Your task to perform on an android device: turn notification dots off Image 0: 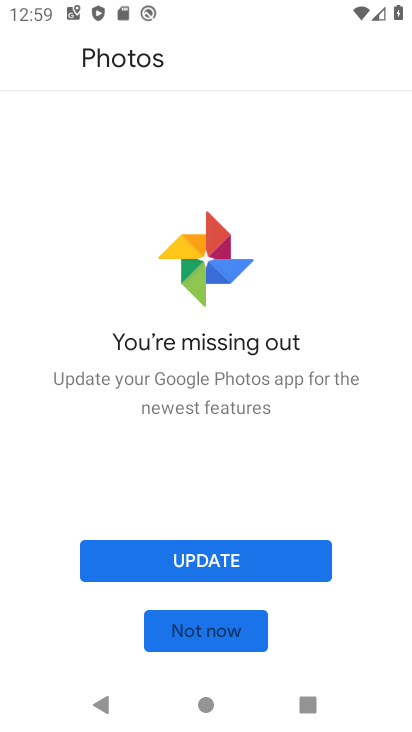
Step 0: press home button
Your task to perform on an android device: turn notification dots off Image 1: 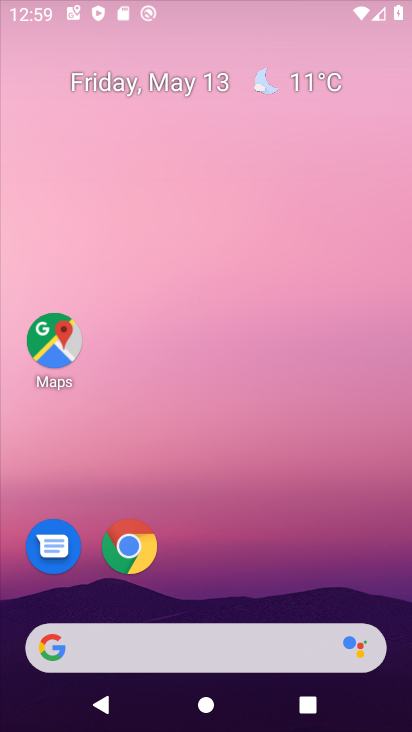
Step 1: drag from (224, 633) to (307, 48)
Your task to perform on an android device: turn notification dots off Image 2: 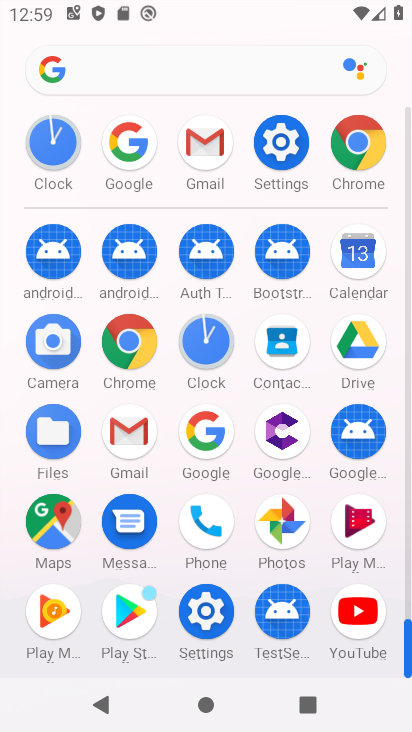
Step 2: click (289, 161)
Your task to perform on an android device: turn notification dots off Image 3: 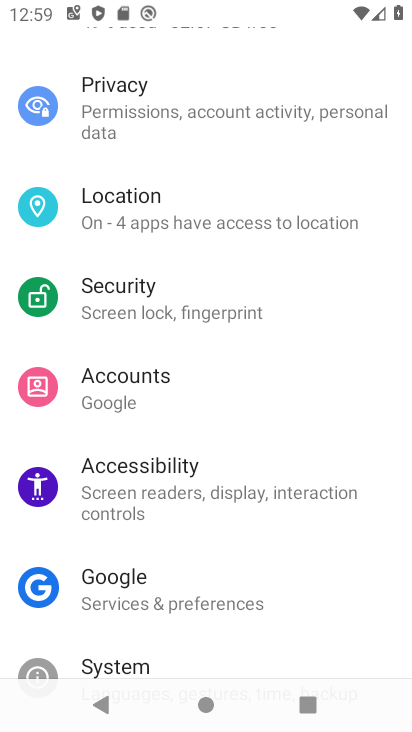
Step 3: drag from (288, 271) to (302, 603)
Your task to perform on an android device: turn notification dots off Image 4: 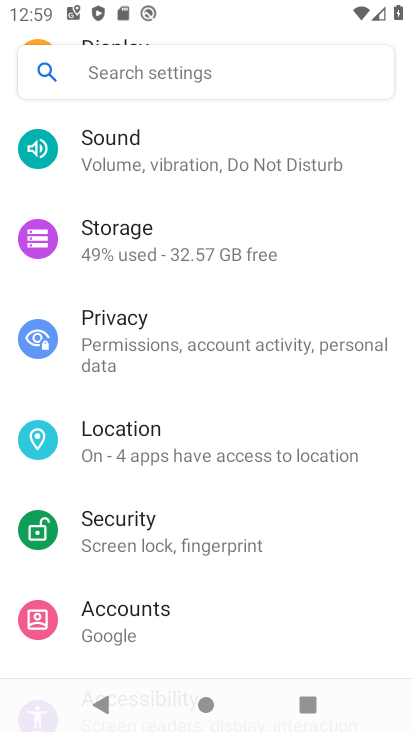
Step 4: drag from (221, 305) to (177, 499)
Your task to perform on an android device: turn notification dots off Image 5: 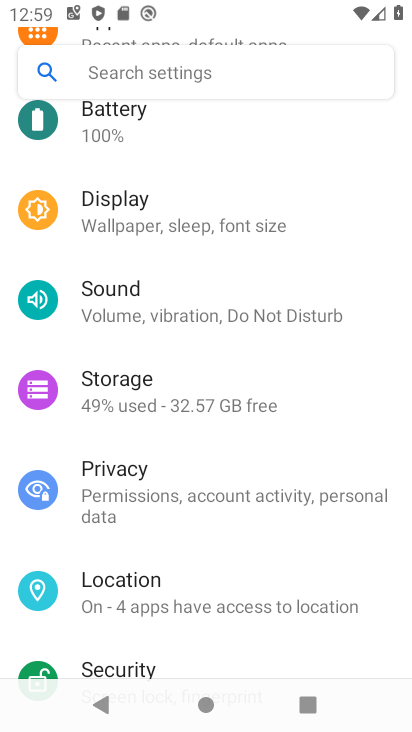
Step 5: drag from (173, 269) to (168, 513)
Your task to perform on an android device: turn notification dots off Image 6: 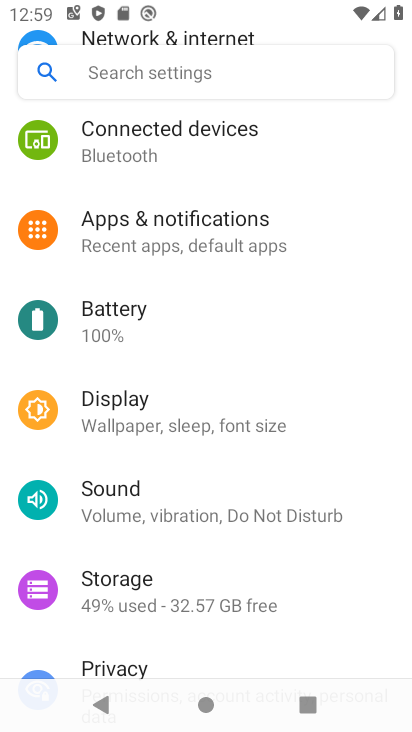
Step 6: drag from (249, 289) to (237, 452)
Your task to perform on an android device: turn notification dots off Image 7: 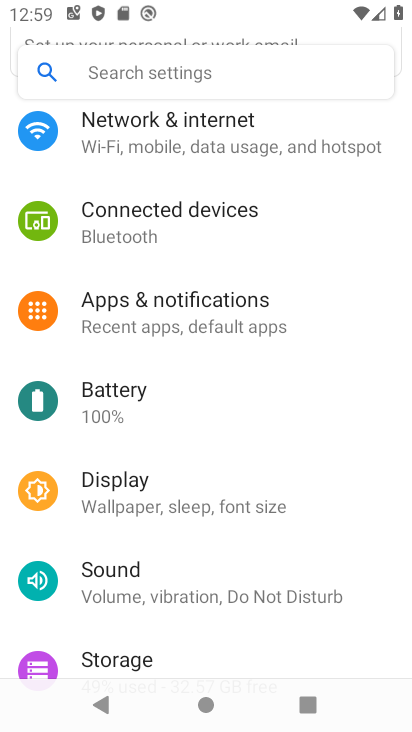
Step 7: click (211, 320)
Your task to perform on an android device: turn notification dots off Image 8: 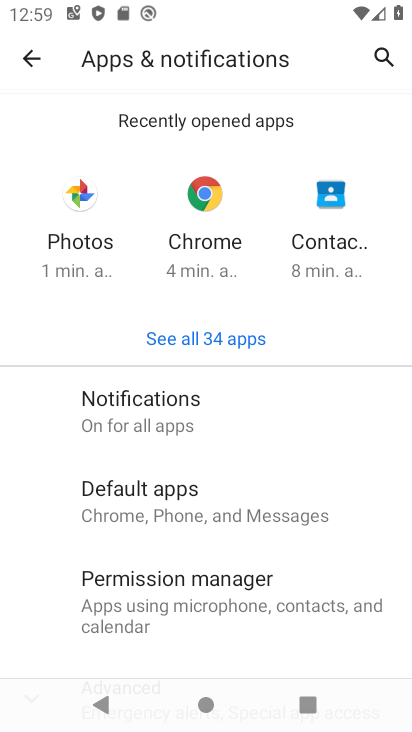
Step 8: click (213, 404)
Your task to perform on an android device: turn notification dots off Image 9: 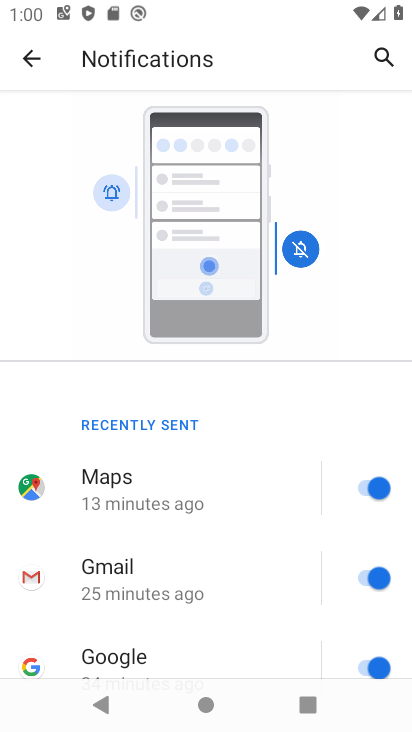
Step 9: drag from (252, 604) to (297, 377)
Your task to perform on an android device: turn notification dots off Image 10: 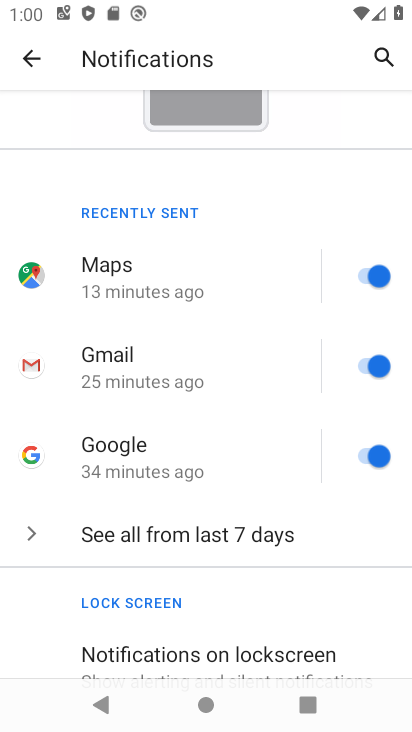
Step 10: drag from (277, 473) to (305, 331)
Your task to perform on an android device: turn notification dots off Image 11: 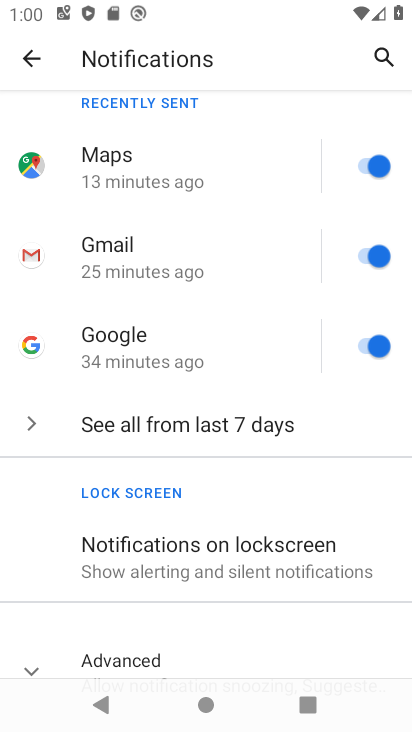
Step 11: drag from (256, 500) to (288, 351)
Your task to perform on an android device: turn notification dots off Image 12: 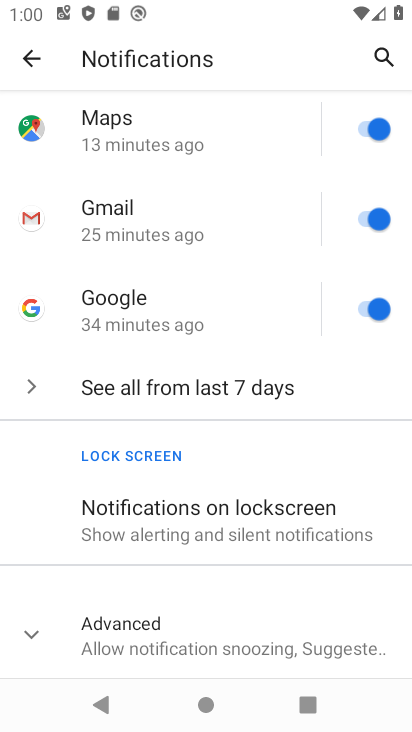
Step 12: click (235, 634)
Your task to perform on an android device: turn notification dots off Image 13: 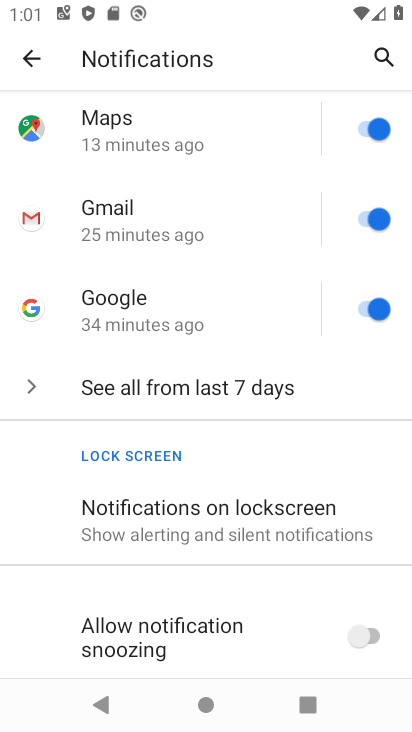
Step 13: drag from (197, 450) to (200, 242)
Your task to perform on an android device: turn notification dots off Image 14: 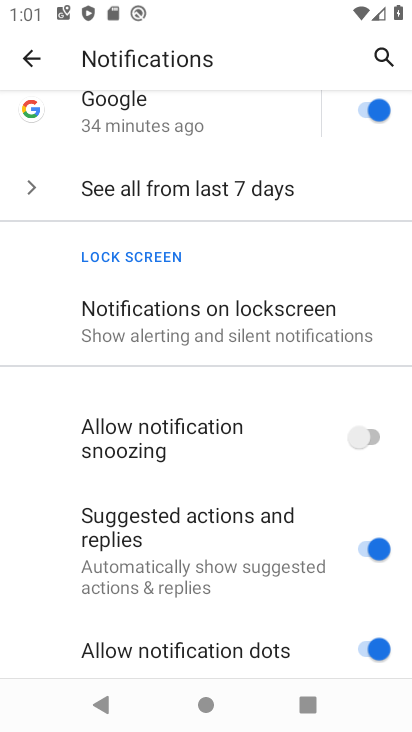
Step 14: drag from (219, 497) to (247, 264)
Your task to perform on an android device: turn notification dots off Image 15: 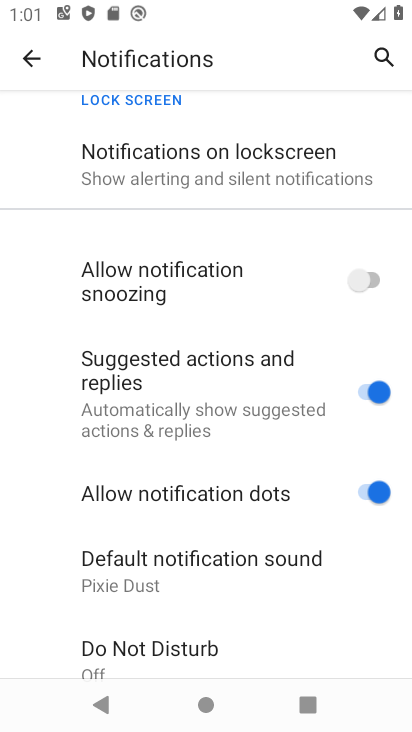
Step 15: click (349, 494)
Your task to perform on an android device: turn notification dots off Image 16: 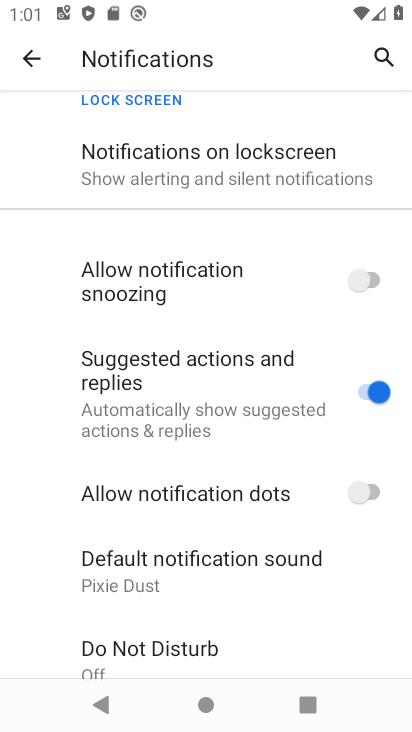
Step 16: task complete